Your task to perform on an android device: toggle location history Image 0: 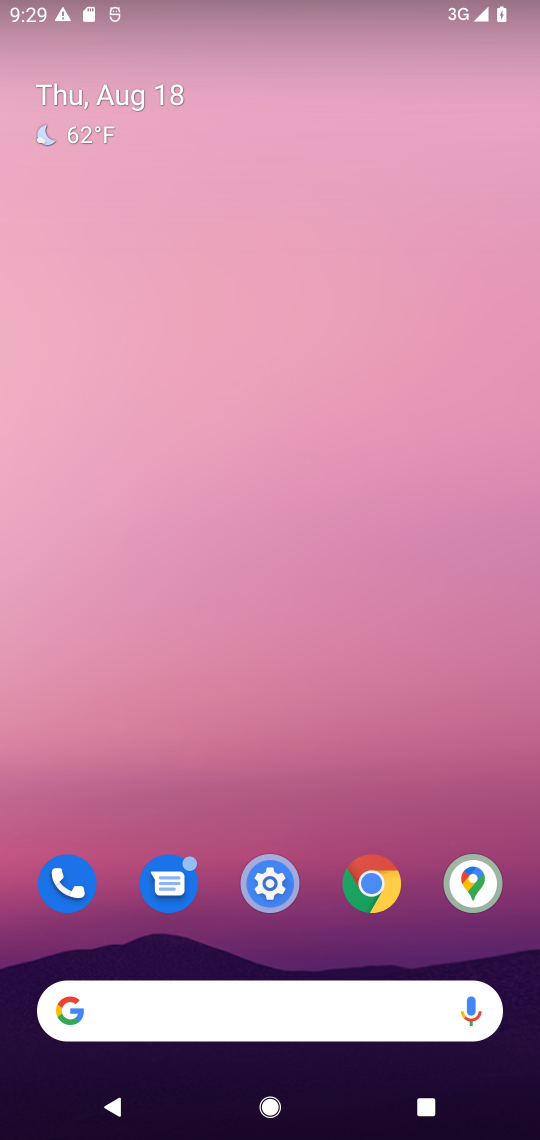
Step 0: drag from (28, 1065) to (344, 375)
Your task to perform on an android device: toggle location history Image 1: 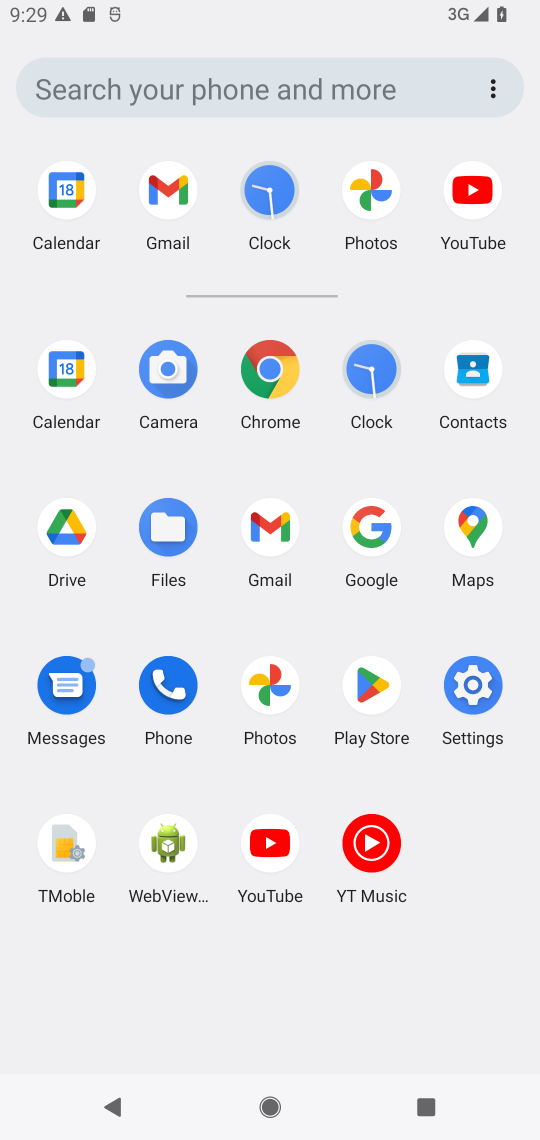
Step 1: click (453, 702)
Your task to perform on an android device: toggle location history Image 2: 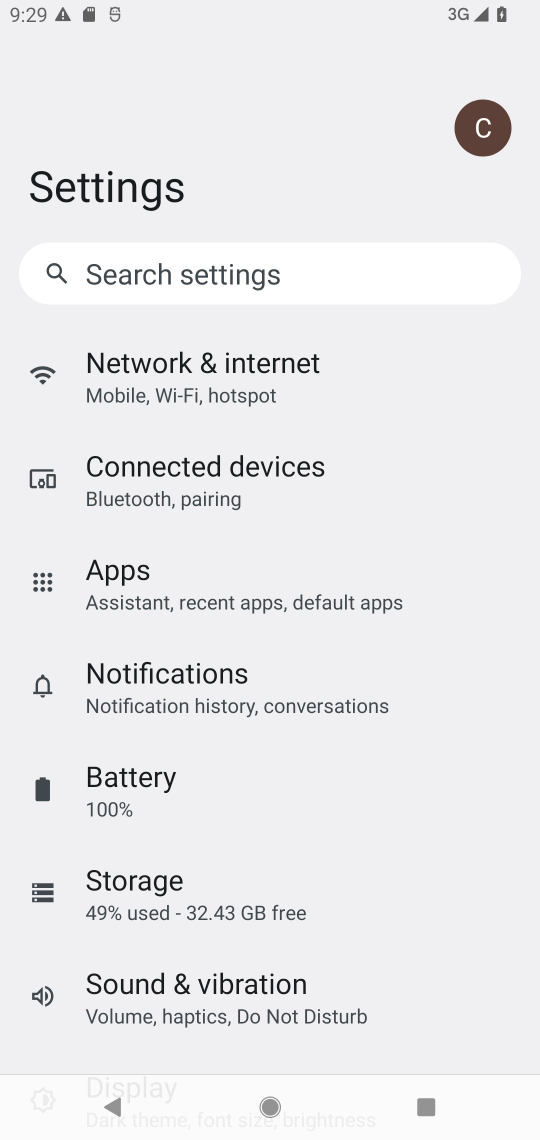
Step 2: drag from (364, 1006) to (348, 451)
Your task to perform on an android device: toggle location history Image 3: 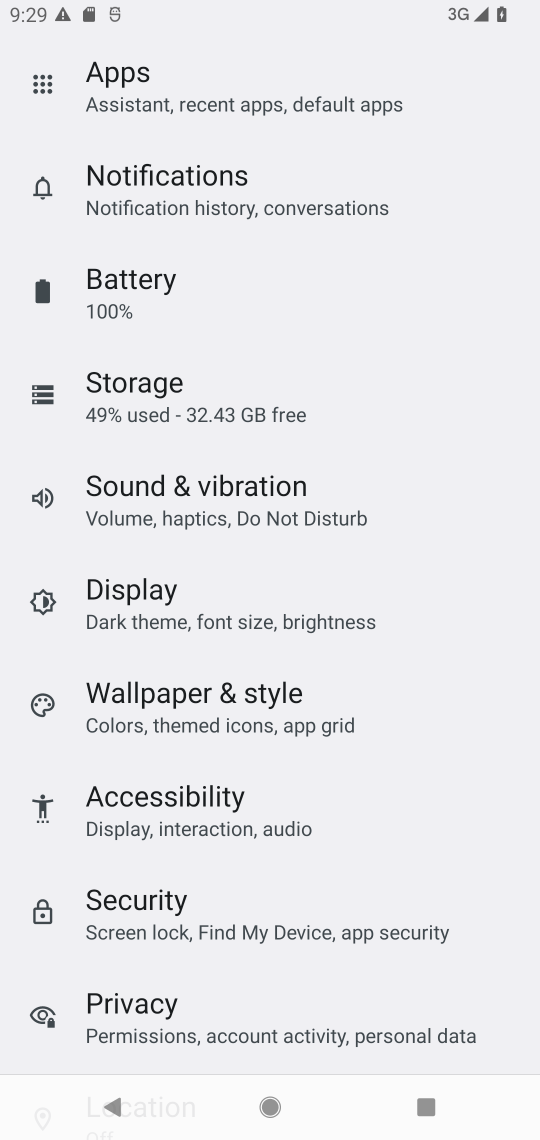
Step 3: drag from (499, 1002) to (366, 524)
Your task to perform on an android device: toggle location history Image 4: 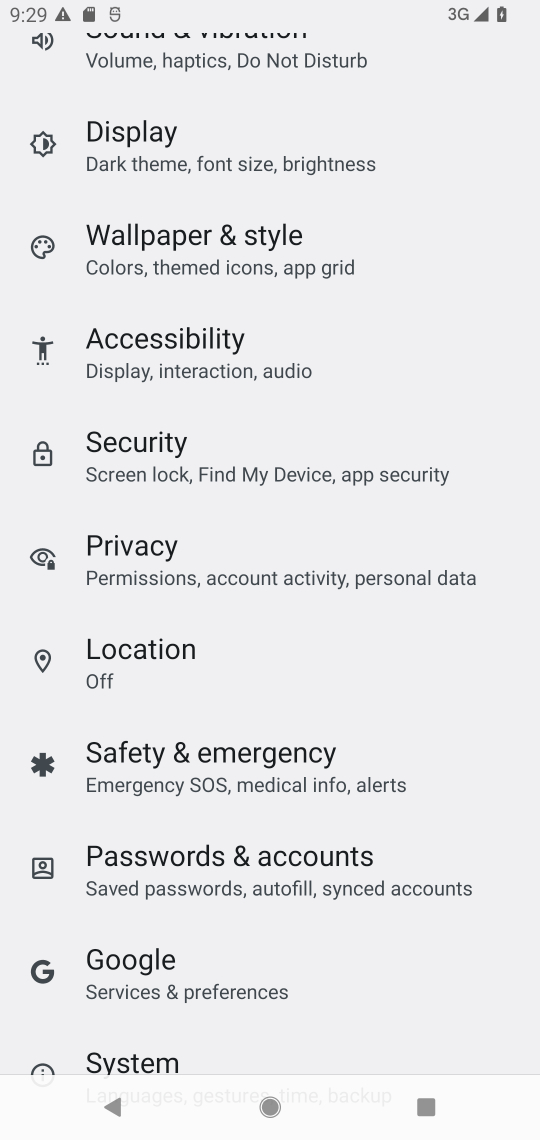
Step 4: drag from (397, 1026) to (299, 437)
Your task to perform on an android device: toggle location history Image 5: 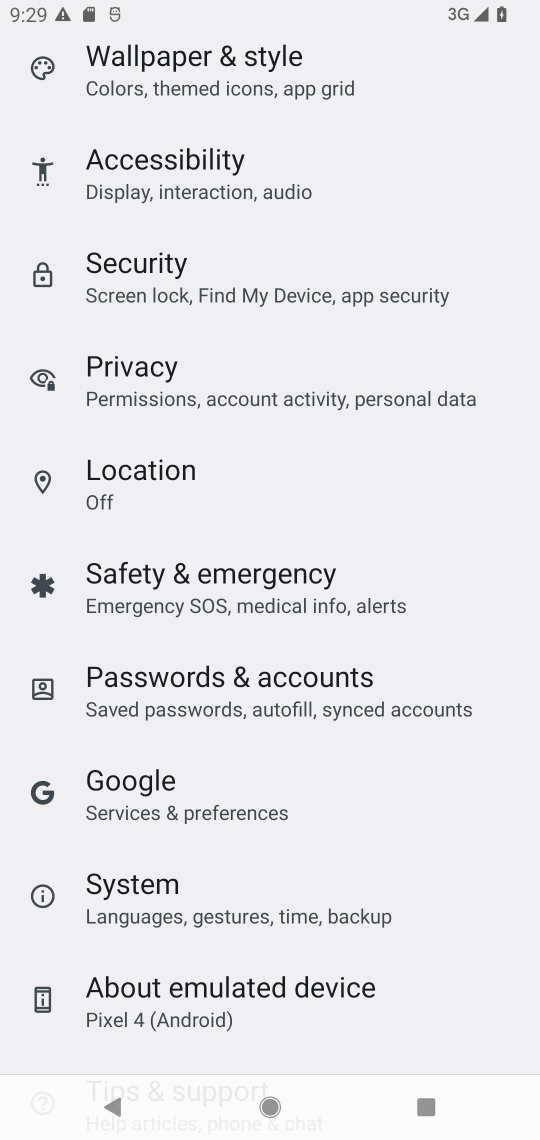
Step 5: click (150, 489)
Your task to perform on an android device: toggle location history Image 6: 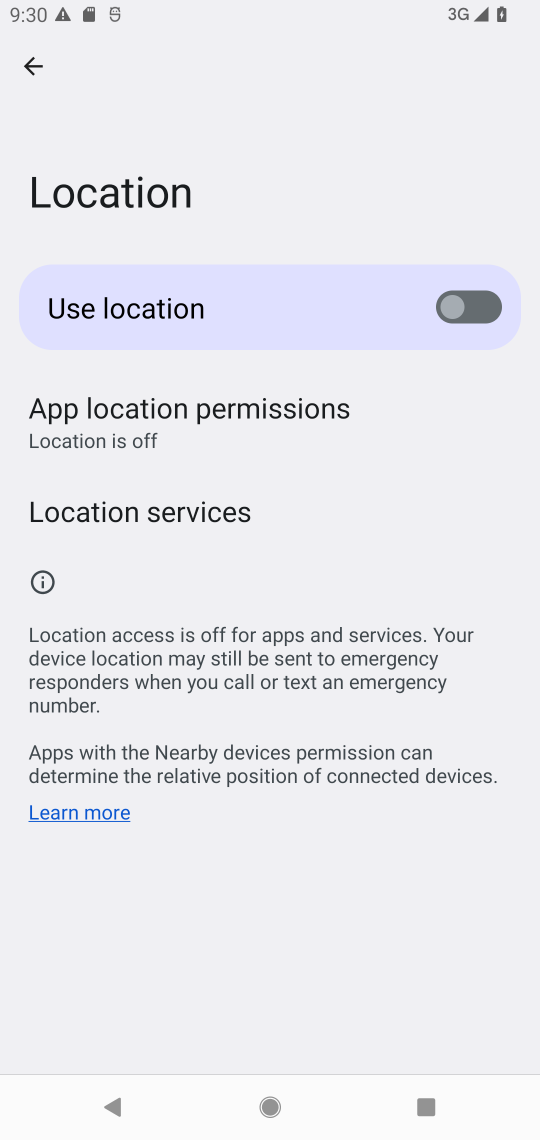
Step 6: click (453, 313)
Your task to perform on an android device: toggle location history Image 7: 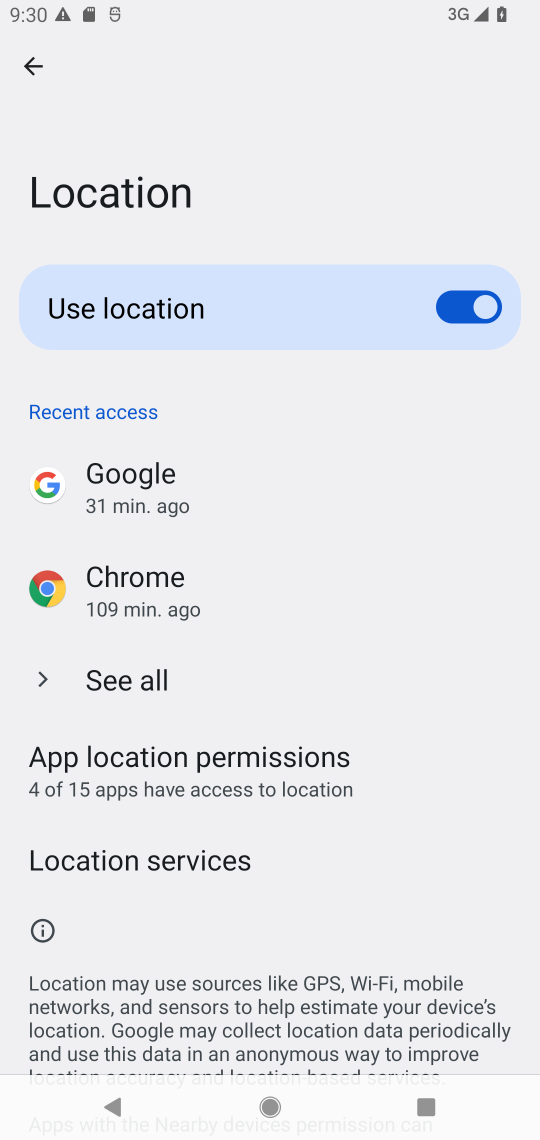
Step 7: task complete